Your task to perform on an android device: change your default location settings in chrome Image 0: 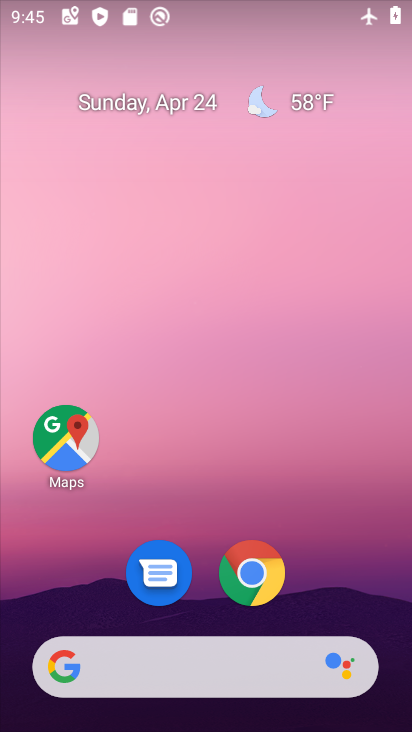
Step 0: drag from (323, 607) to (326, 128)
Your task to perform on an android device: change your default location settings in chrome Image 1: 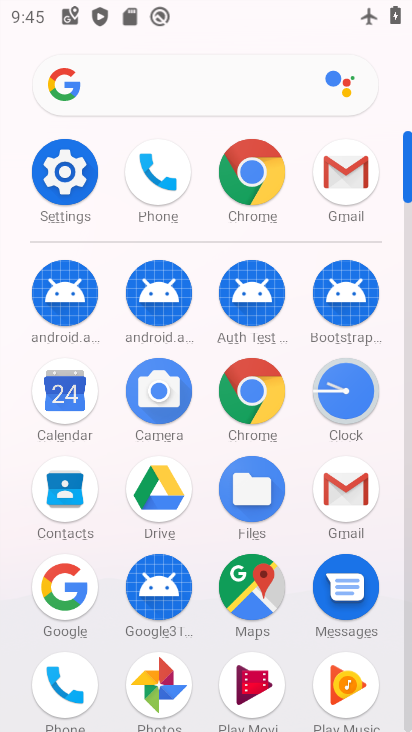
Step 1: click (265, 384)
Your task to perform on an android device: change your default location settings in chrome Image 2: 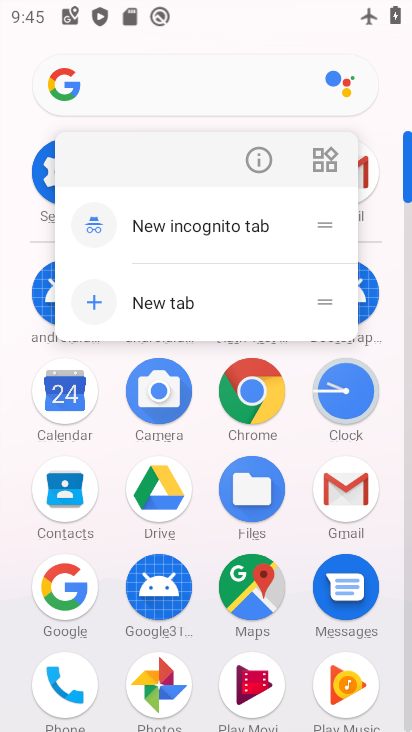
Step 2: click (258, 390)
Your task to perform on an android device: change your default location settings in chrome Image 3: 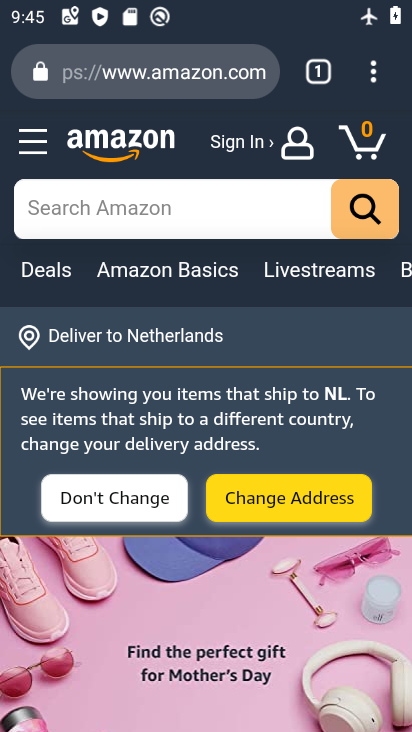
Step 3: drag from (375, 67) to (133, 561)
Your task to perform on an android device: change your default location settings in chrome Image 4: 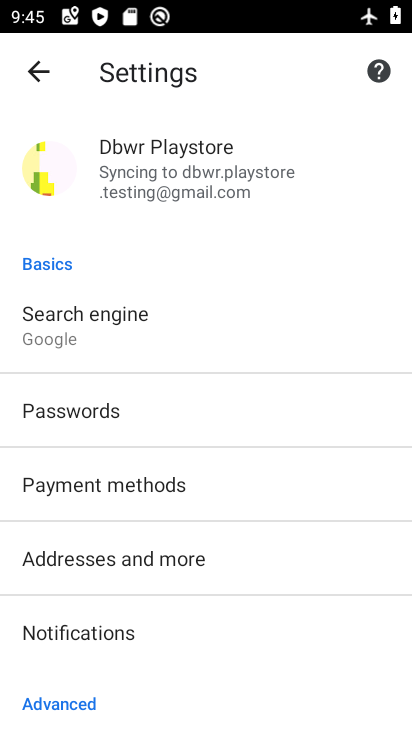
Step 4: drag from (260, 670) to (203, 102)
Your task to perform on an android device: change your default location settings in chrome Image 5: 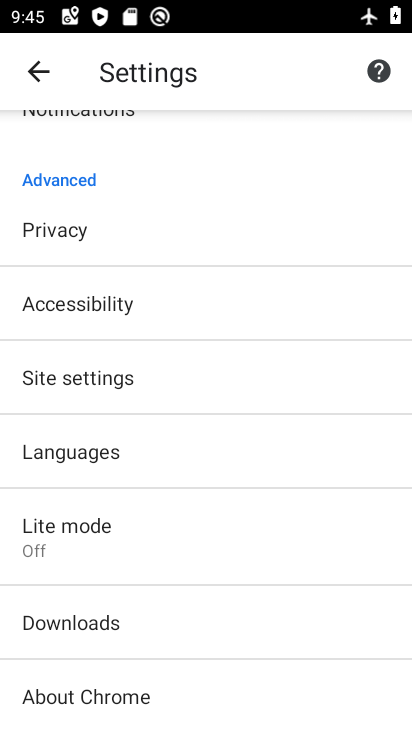
Step 5: click (150, 376)
Your task to perform on an android device: change your default location settings in chrome Image 6: 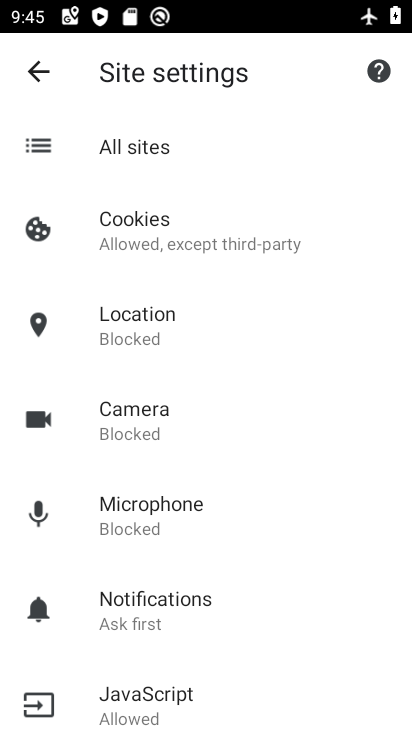
Step 6: drag from (299, 621) to (238, 637)
Your task to perform on an android device: change your default location settings in chrome Image 7: 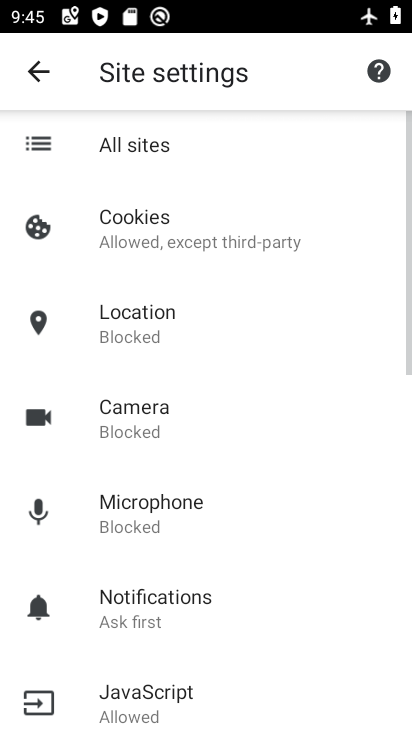
Step 7: click (150, 345)
Your task to perform on an android device: change your default location settings in chrome Image 8: 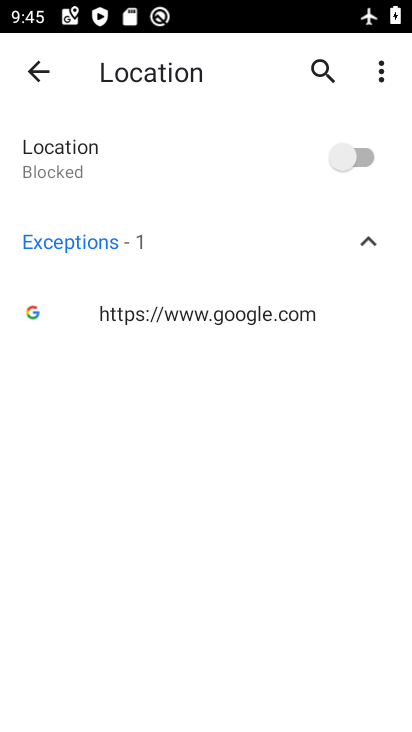
Step 8: click (368, 155)
Your task to perform on an android device: change your default location settings in chrome Image 9: 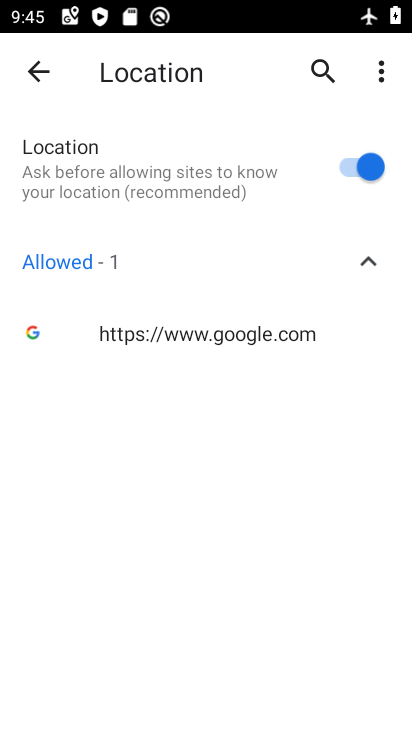
Step 9: task complete